Your task to perform on an android device: Find coffee shops on Maps Image 0: 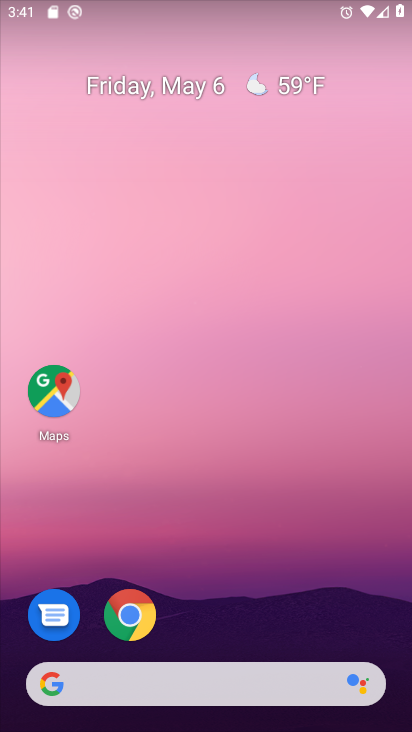
Step 0: click (52, 397)
Your task to perform on an android device: Find coffee shops on Maps Image 1: 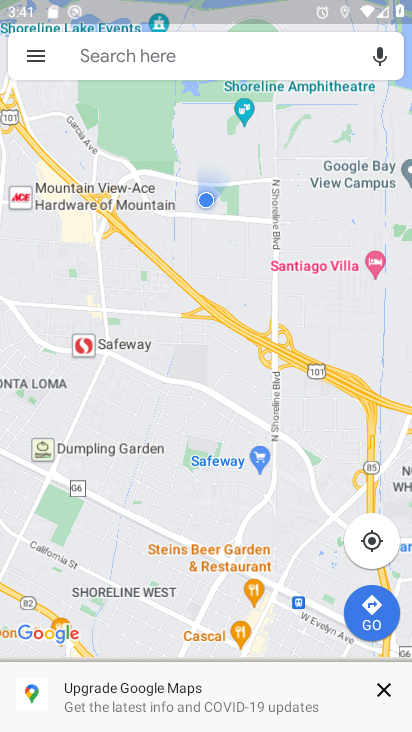
Step 1: click (84, 54)
Your task to perform on an android device: Find coffee shops on Maps Image 2: 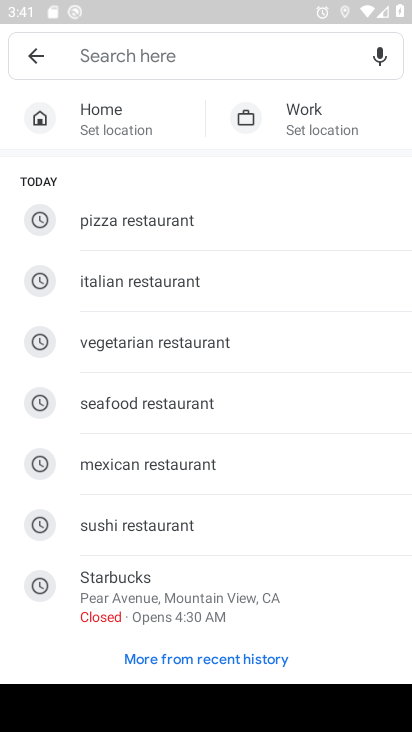
Step 2: type "coffee shops "
Your task to perform on an android device: Find coffee shops on Maps Image 3: 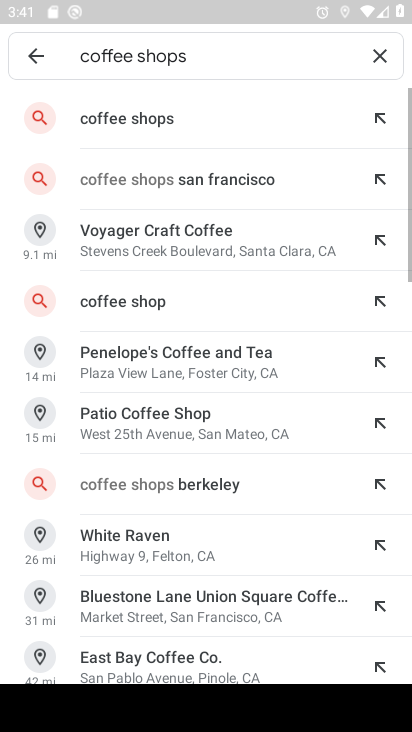
Step 3: click (121, 123)
Your task to perform on an android device: Find coffee shops on Maps Image 4: 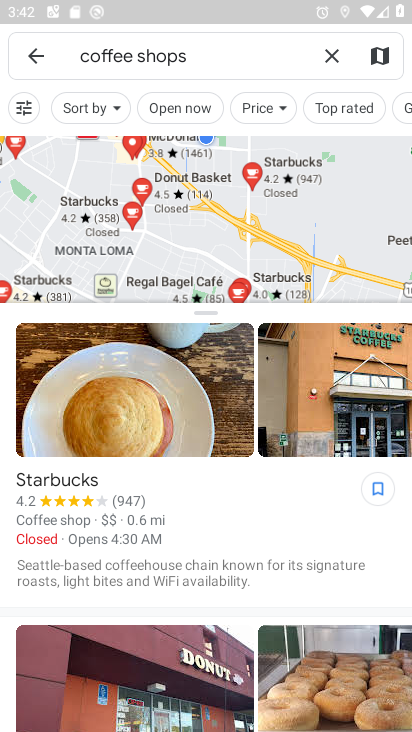
Step 4: task complete